Your task to perform on an android device: check out phone information Image 0: 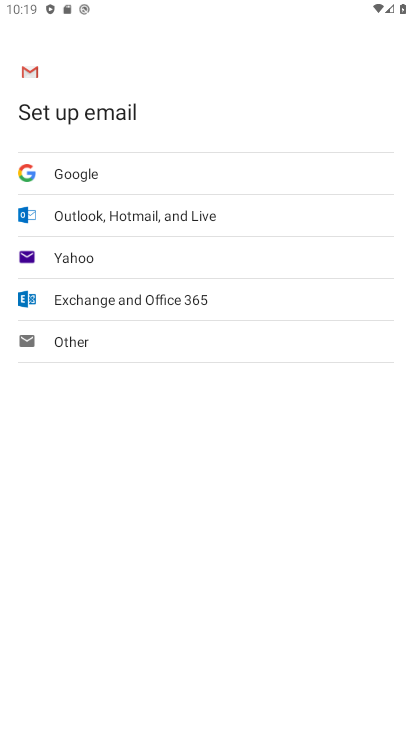
Step 0: press home button
Your task to perform on an android device: check out phone information Image 1: 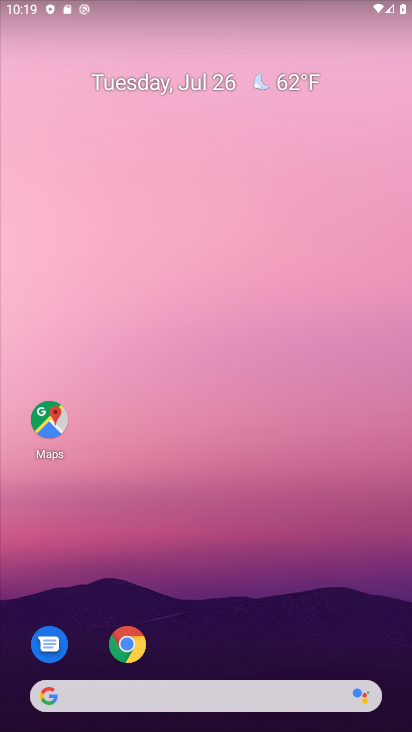
Step 1: drag from (235, 536) to (197, 12)
Your task to perform on an android device: check out phone information Image 2: 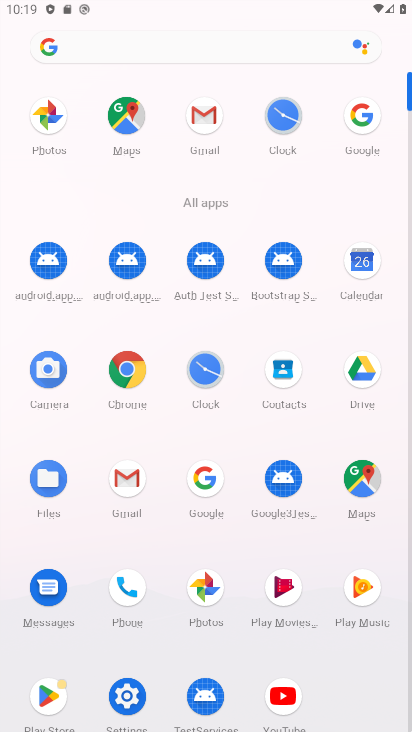
Step 2: click (126, 487)
Your task to perform on an android device: check out phone information Image 3: 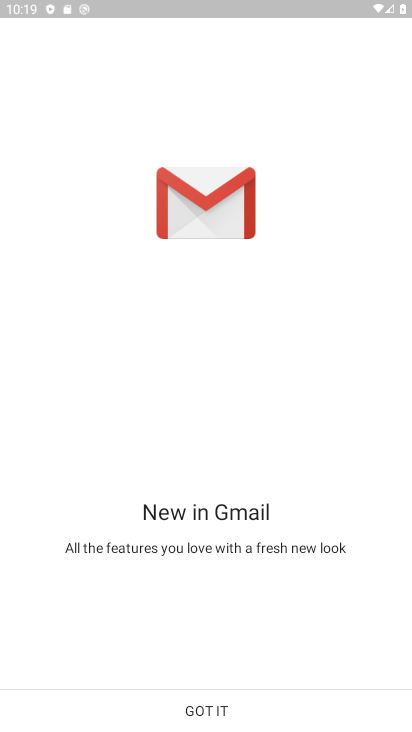
Step 3: click (253, 713)
Your task to perform on an android device: check out phone information Image 4: 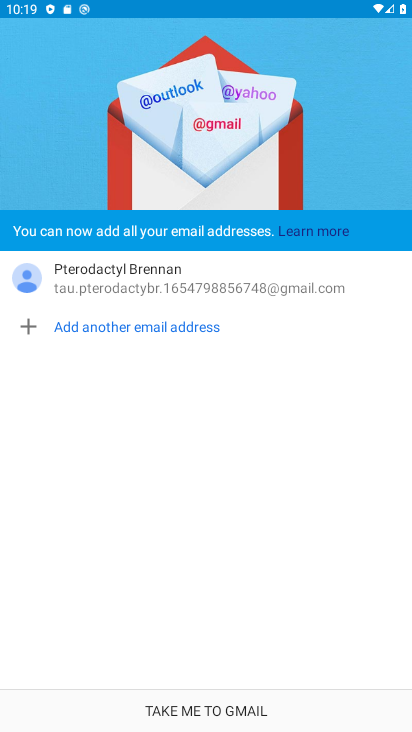
Step 4: click (270, 706)
Your task to perform on an android device: check out phone information Image 5: 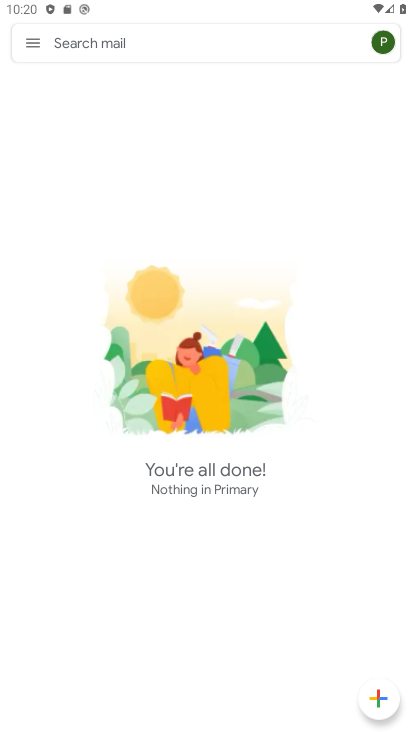
Step 5: press home button
Your task to perform on an android device: check out phone information Image 6: 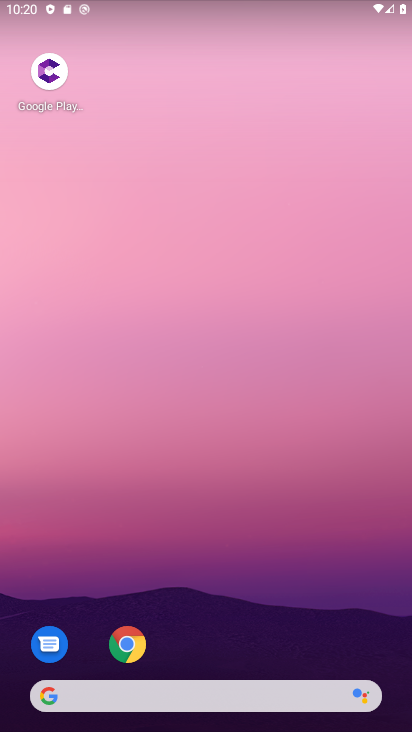
Step 6: drag from (247, 600) to (206, 192)
Your task to perform on an android device: check out phone information Image 7: 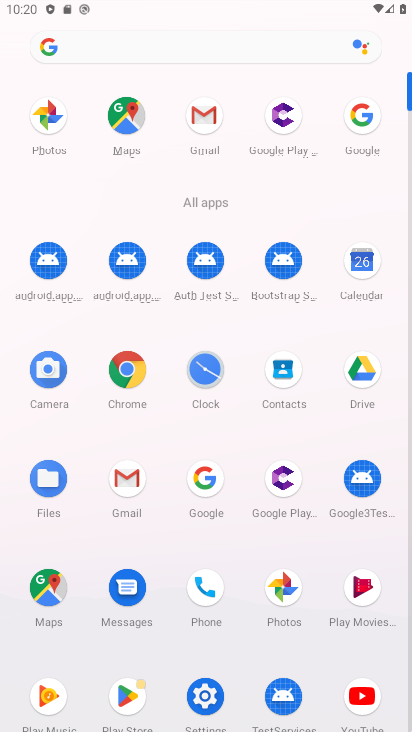
Step 7: click (206, 192)
Your task to perform on an android device: check out phone information Image 8: 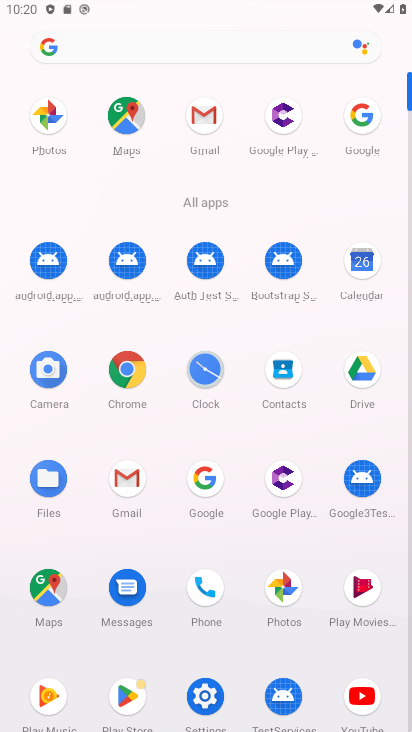
Step 8: click (196, 708)
Your task to perform on an android device: check out phone information Image 9: 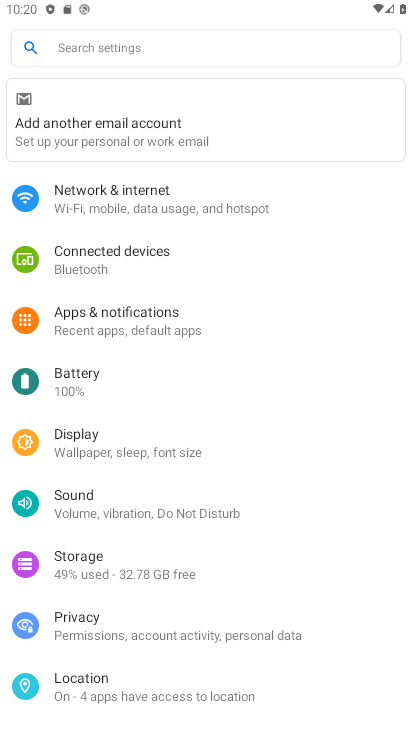
Step 9: drag from (286, 677) to (311, 11)
Your task to perform on an android device: check out phone information Image 10: 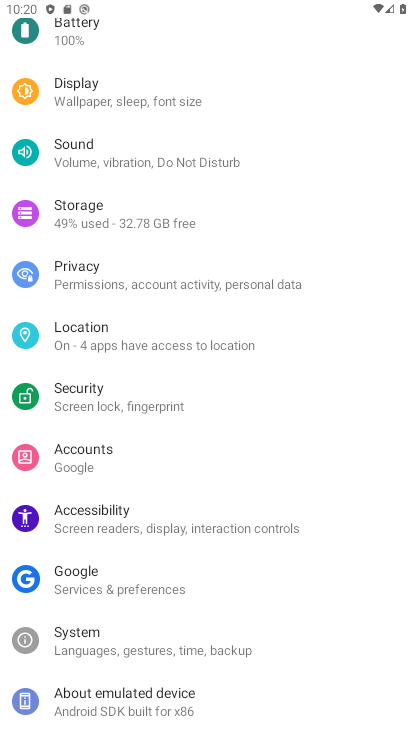
Step 10: click (120, 690)
Your task to perform on an android device: check out phone information Image 11: 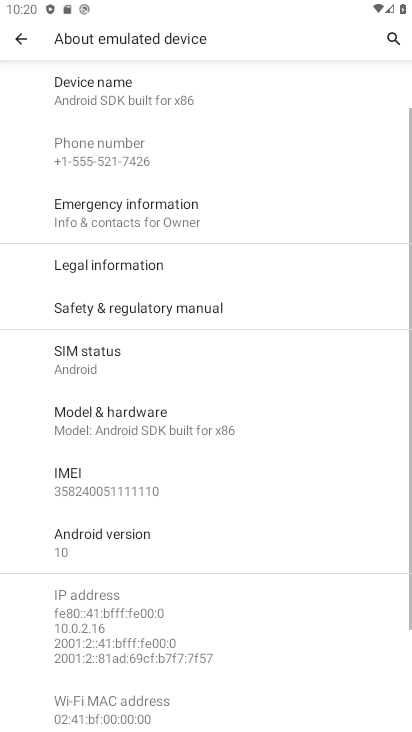
Step 11: task complete